Your task to perform on an android device: Open notification settings Image 0: 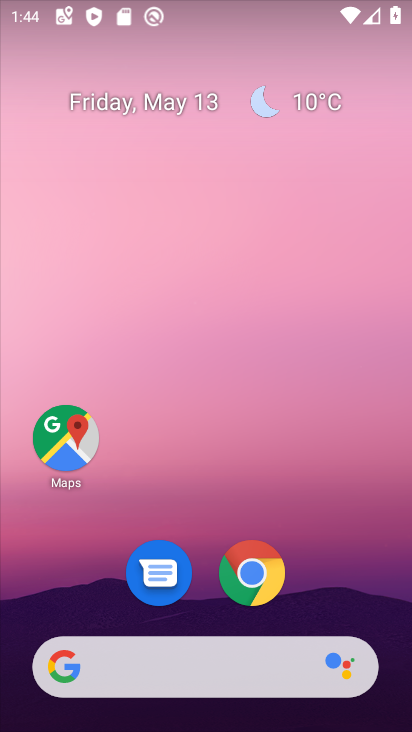
Step 0: drag from (298, 473) to (239, 18)
Your task to perform on an android device: Open notification settings Image 1: 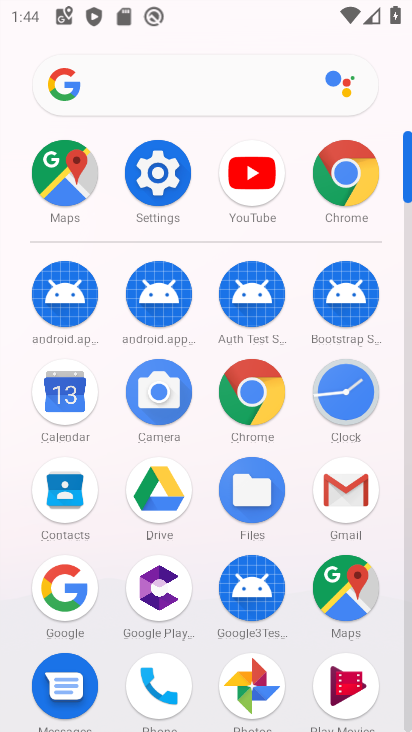
Step 1: click (155, 171)
Your task to perform on an android device: Open notification settings Image 2: 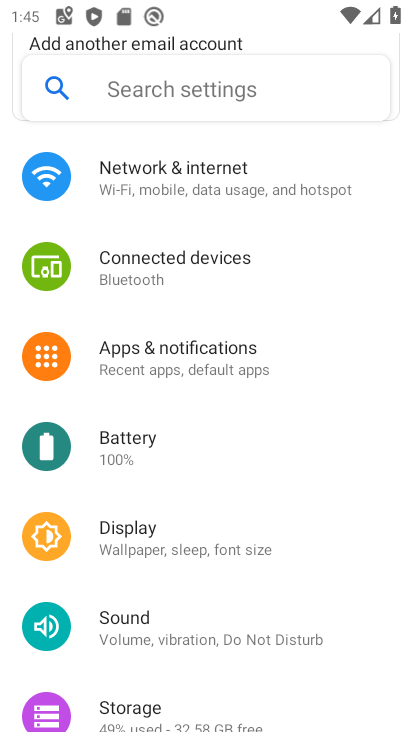
Step 2: click (158, 362)
Your task to perform on an android device: Open notification settings Image 3: 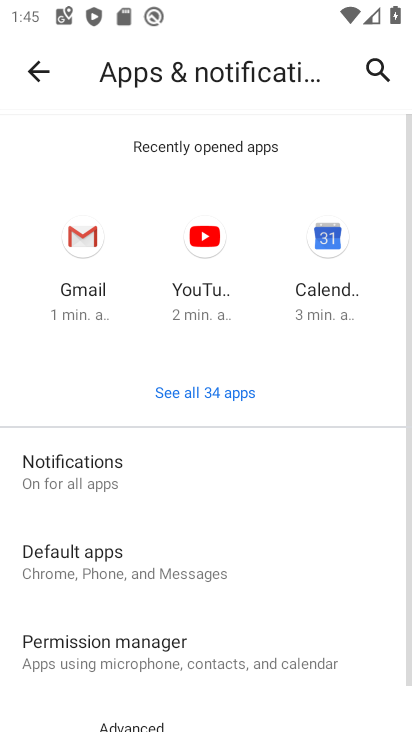
Step 3: drag from (297, 569) to (268, 208)
Your task to perform on an android device: Open notification settings Image 4: 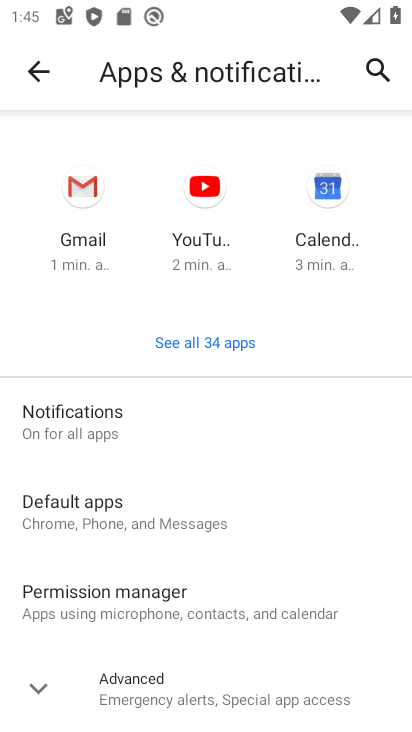
Step 4: click (28, 683)
Your task to perform on an android device: Open notification settings Image 5: 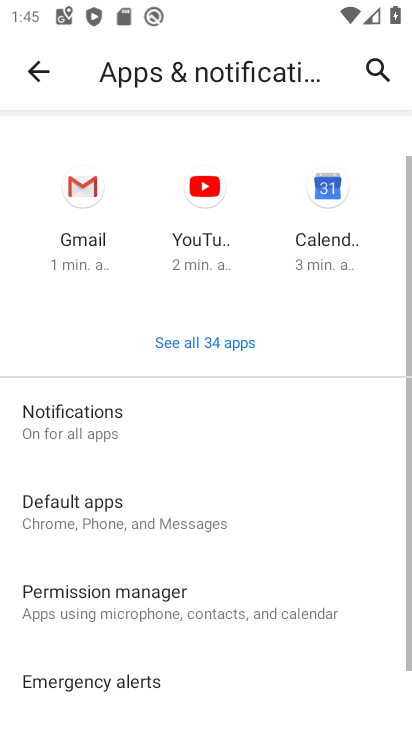
Step 5: drag from (288, 531) to (291, 218)
Your task to perform on an android device: Open notification settings Image 6: 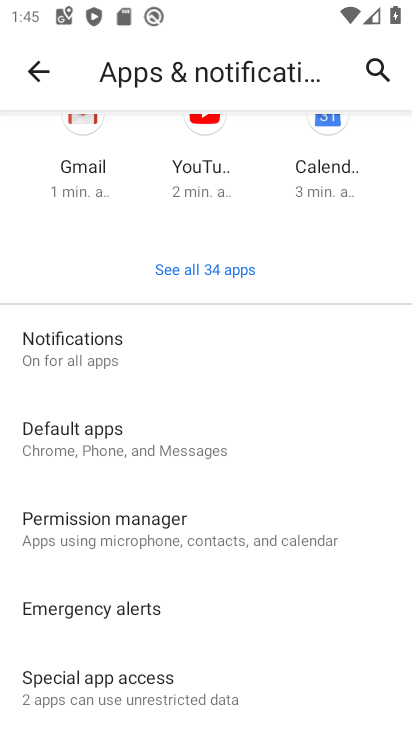
Step 6: click (100, 350)
Your task to perform on an android device: Open notification settings Image 7: 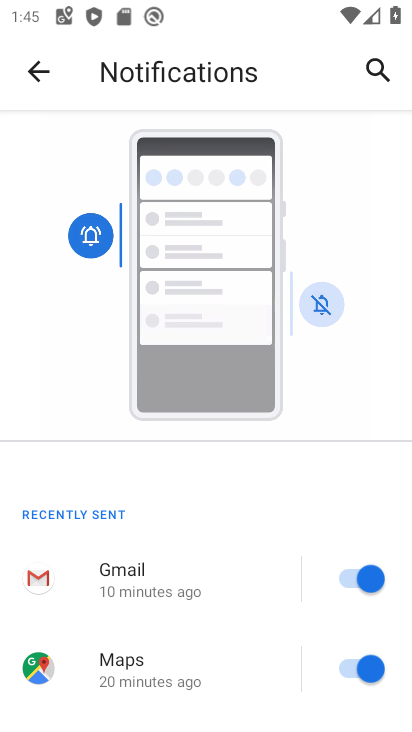
Step 7: drag from (251, 608) to (302, 138)
Your task to perform on an android device: Open notification settings Image 8: 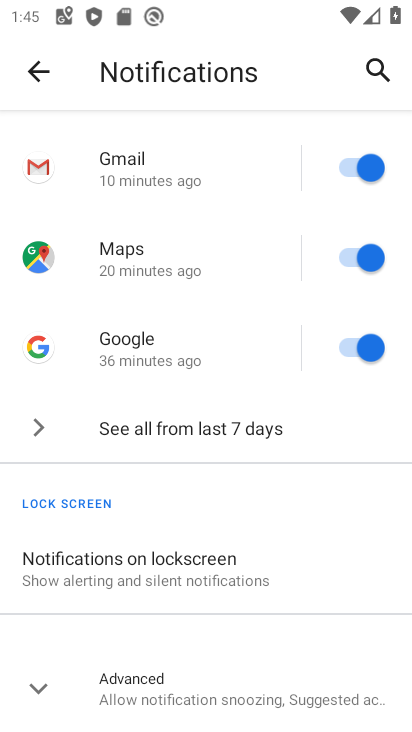
Step 8: click (30, 685)
Your task to perform on an android device: Open notification settings Image 9: 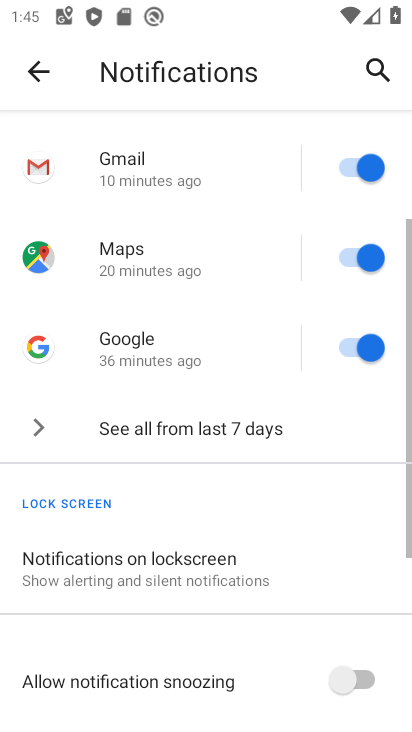
Step 9: task complete